Your task to perform on an android device: change the clock display to show seconds Image 0: 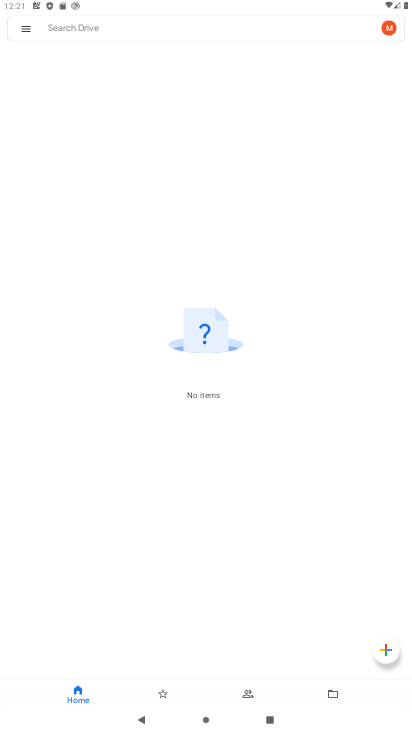
Step 0: press home button
Your task to perform on an android device: change the clock display to show seconds Image 1: 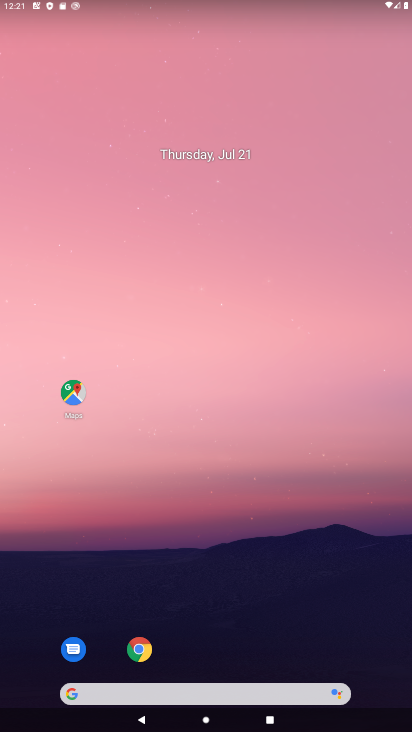
Step 1: drag from (368, 643) to (312, 80)
Your task to perform on an android device: change the clock display to show seconds Image 2: 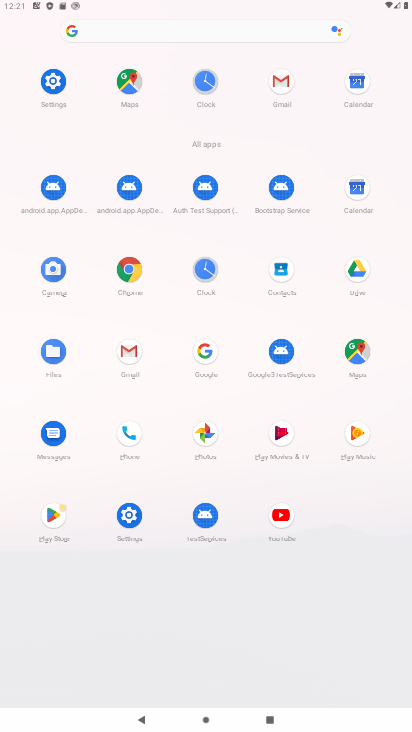
Step 2: click (203, 268)
Your task to perform on an android device: change the clock display to show seconds Image 3: 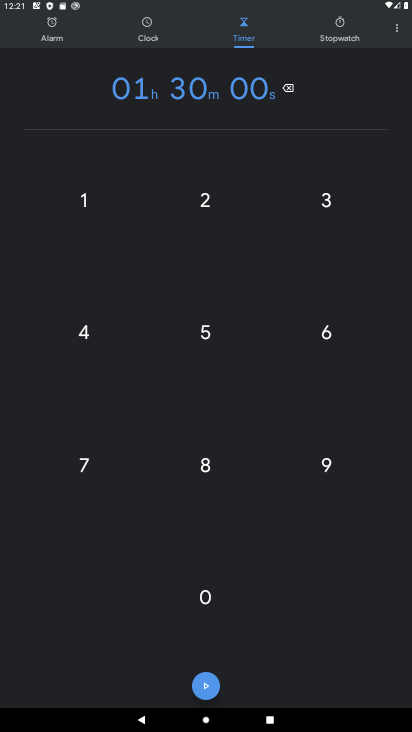
Step 3: click (397, 33)
Your task to perform on an android device: change the clock display to show seconds Image 4: 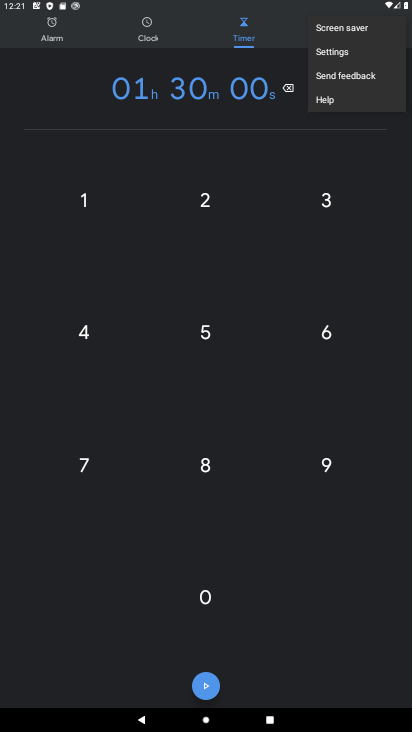
Step 4: click (321, 50)
Your task to perform on an android device: change the clock display to show seconds Image 5: 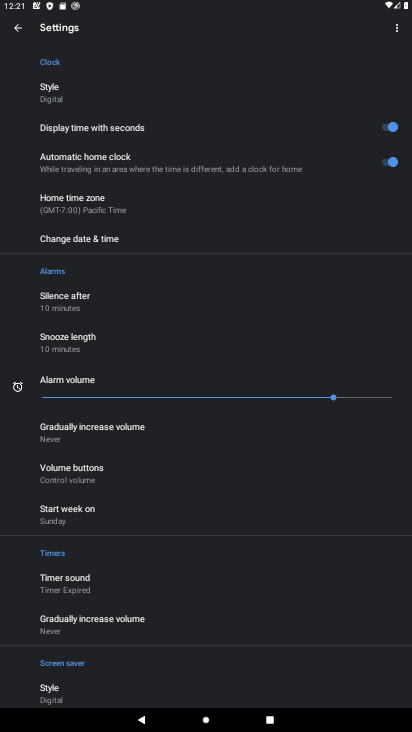
Step 5: task complete